Your task to perform on an android device: Open settings Image 0: 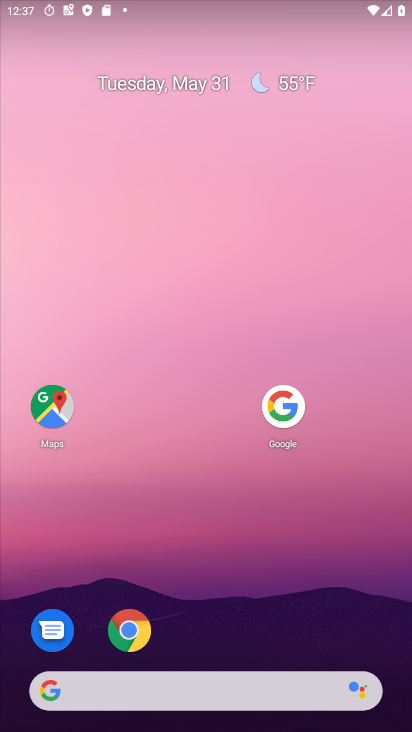
Step 0: drag from (207, 698) to (367, 236)
Your task to perform on an android device: Open settings Image 1: 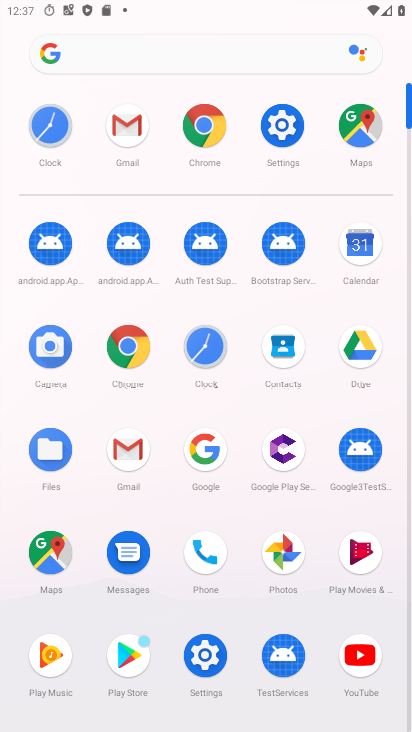
Step 1: click (283, 113)
Your task to perform on an android device: Open settings Image 2: 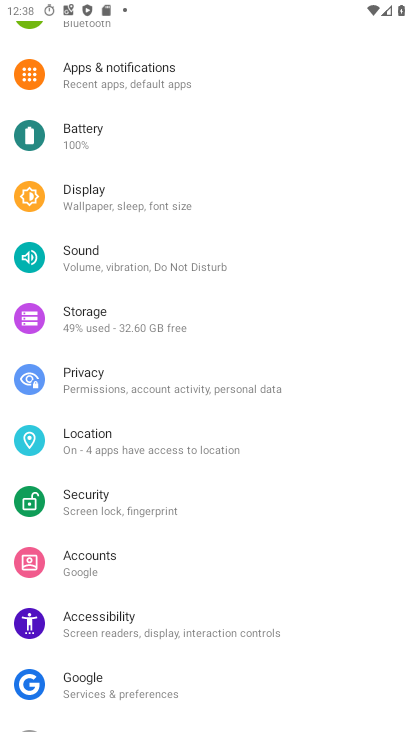
Step 2: task complete